Your task to perform on an android device: Open Wikipedia Image 0: 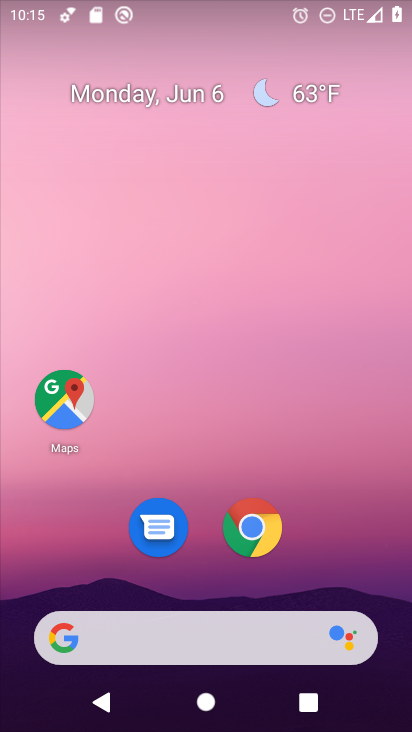
Step 0: drag from (376, 549) to (381, 206)
Your task to perform on an android device: Open Wikipedia Image 1: 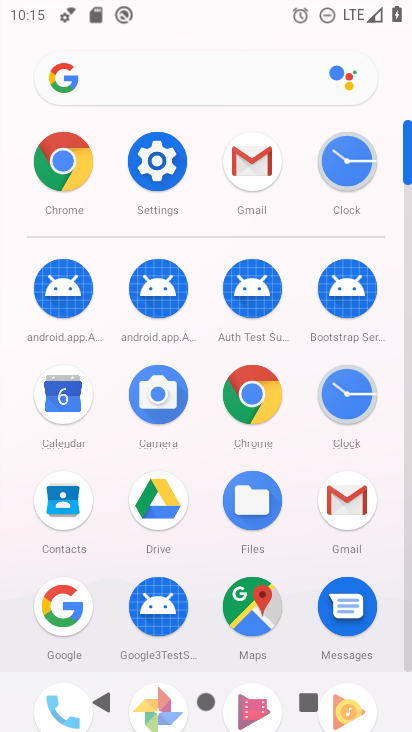
Step 1: click (258, 386)
Your task to perform on an android device: Open Wikipedia Image 2: 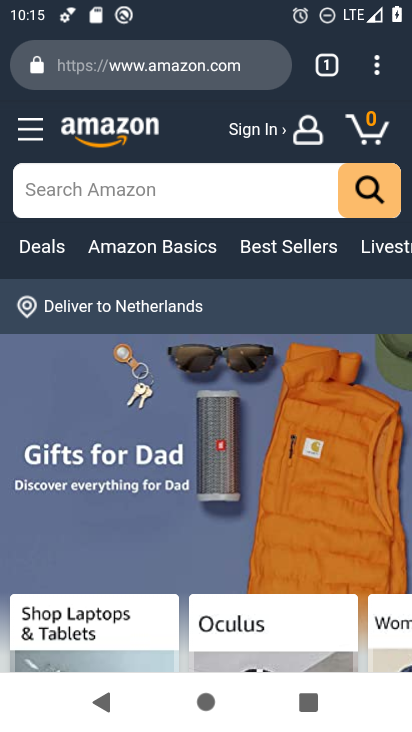
Step 2: click (220, 78)
Your task to perform on an android device: Open Wikipedia Image 3: 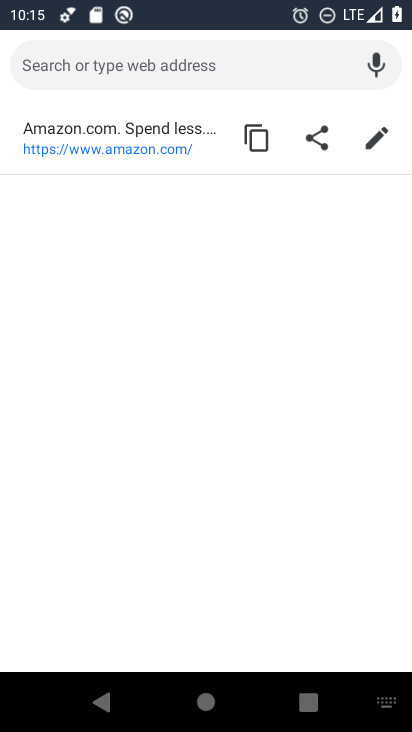
Step 3: type "wikipedia"
Your task to perform on an android device: Open Wikipedia Image 4: 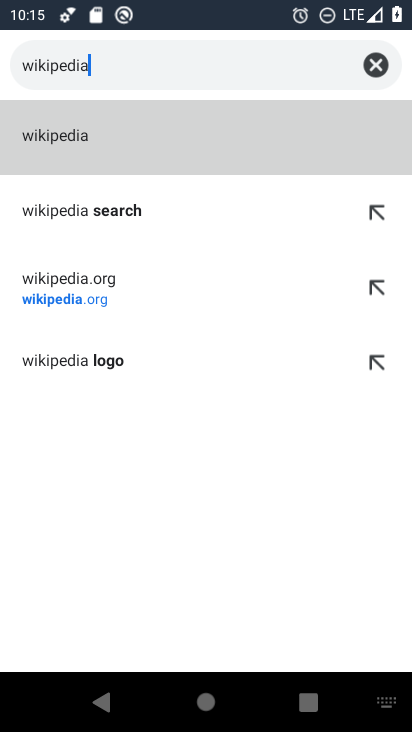
Step 4: click (174, 145)
Your task to perform on an android device: Open Wikipedia Image 5: 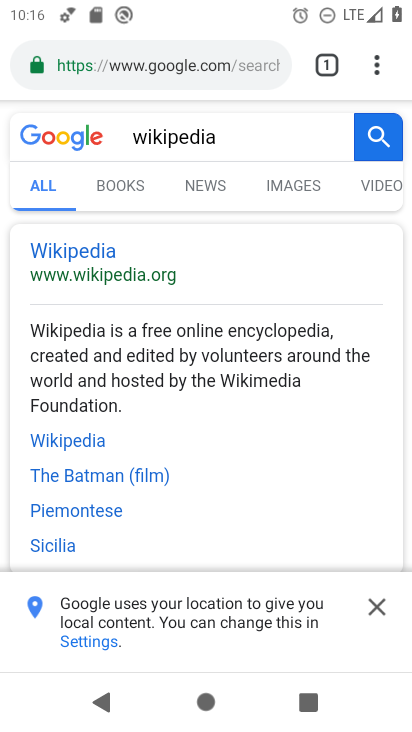
Step 5: task complete